Your task to perform on an android device: turn on notifications settings in the gmail app Image 0: 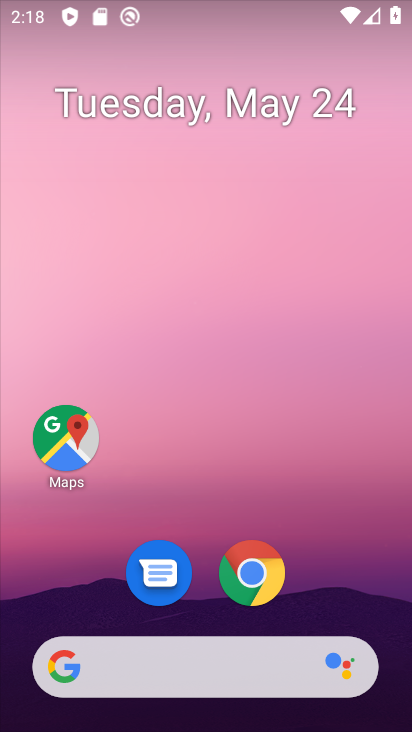
Step 0: drag from (322, 529) to (252, 37)
Your task to perform on an android device: turn on notifications settings in the gmail app Image 1: 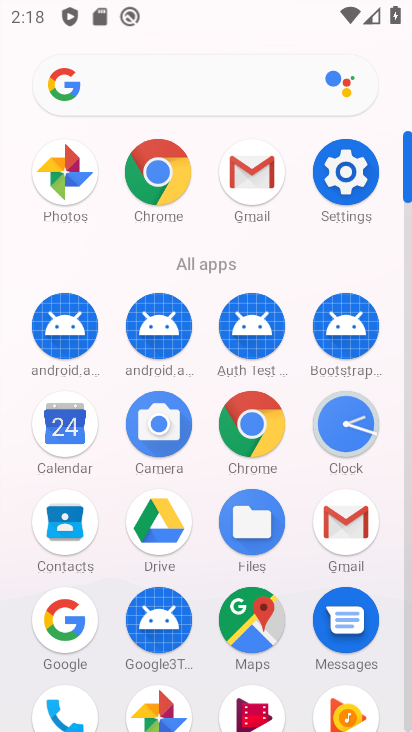
Step 1: drag from (8, 568) to (8, 239)
Your task to perform on an android device: turn on notifications settings in the gmail app Image 2: 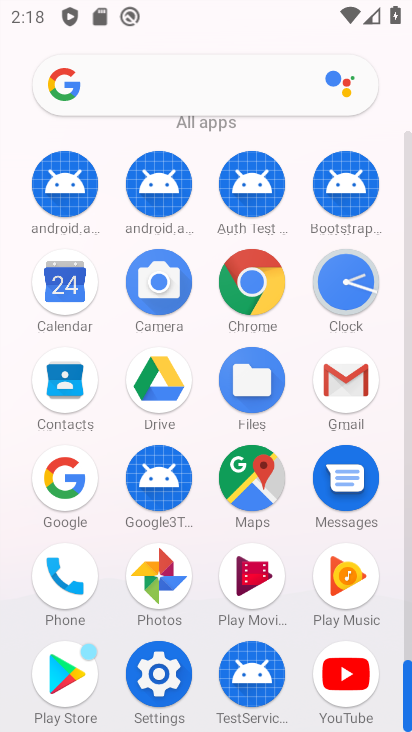
Step 2: click (340, 372)
Your task to perform on an android device: turn on notifications settings in the gmail app Image 3: 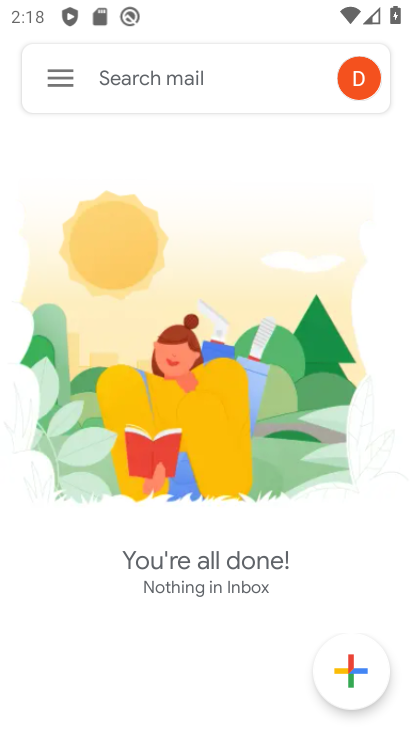
Step 3: click (60, 82)
Your task to perform on an android device: turn on notifications settings in the gmail app Image 4: 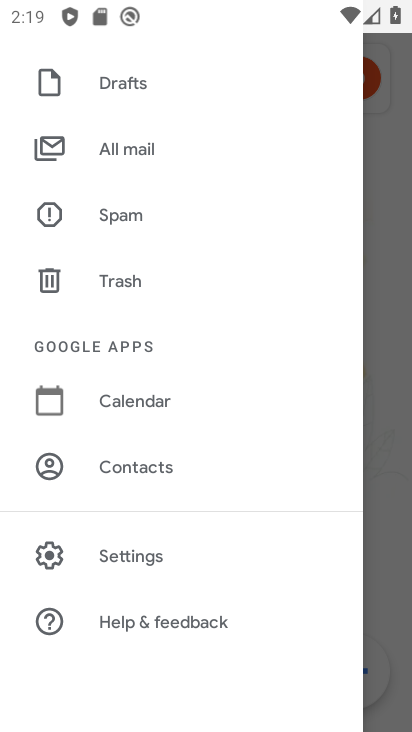
Step 4: click (141, 551)
Your task to perform on an android device: turn on notifications settings in the gmail app Image 5: 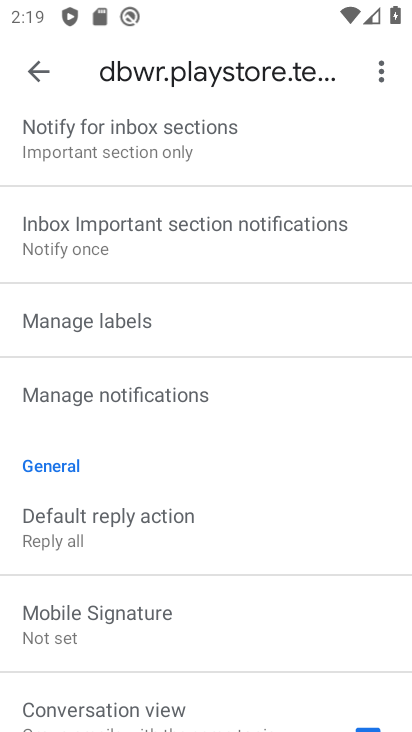
Step 5: click (160, 390)
Your task to perform on an android device: turn on notifications settings in the gmail app Image 6: 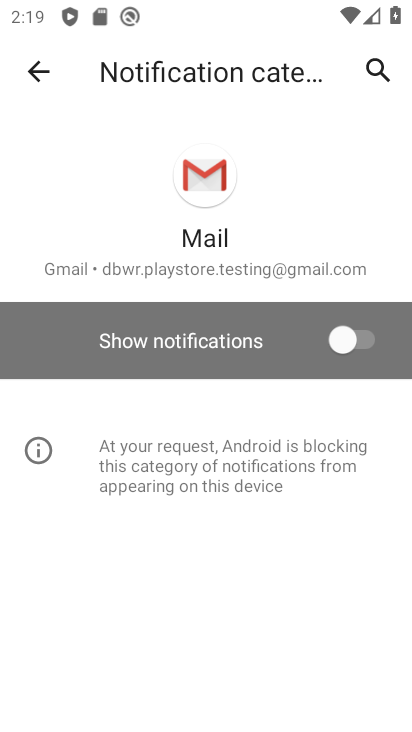
Step 6: click (352, 331)
Your task to perform on an android device: turn on notifications settings in the gmail app Image 7: 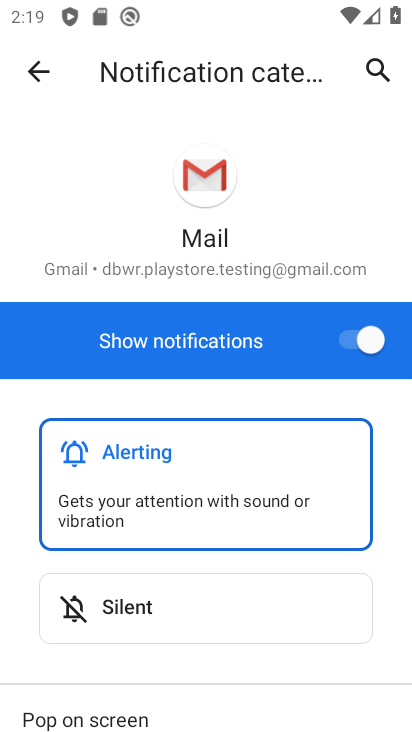
Step 7: task complete